Your task to perform on an android device: Open Android settings Image 0: 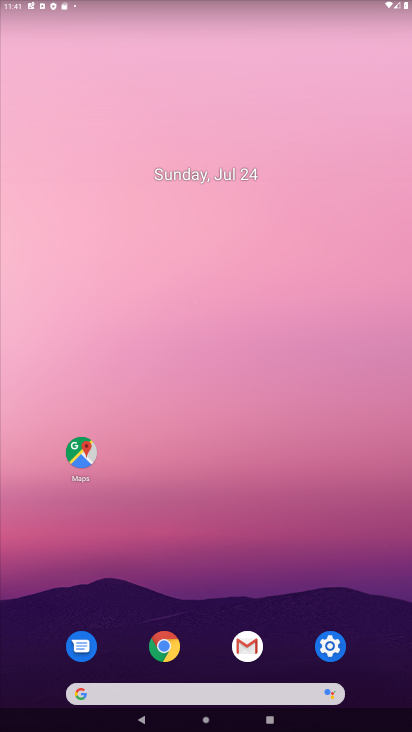
Step 0: click (322, 652)
Your task to perform on an android device: Open Android settings Image 1: 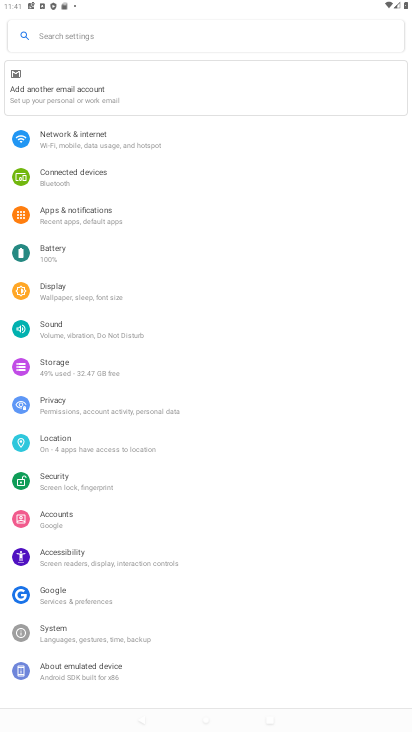
Step 1: click (82, 34)
Your task to perform on an android device: Open Android settings Image 2: 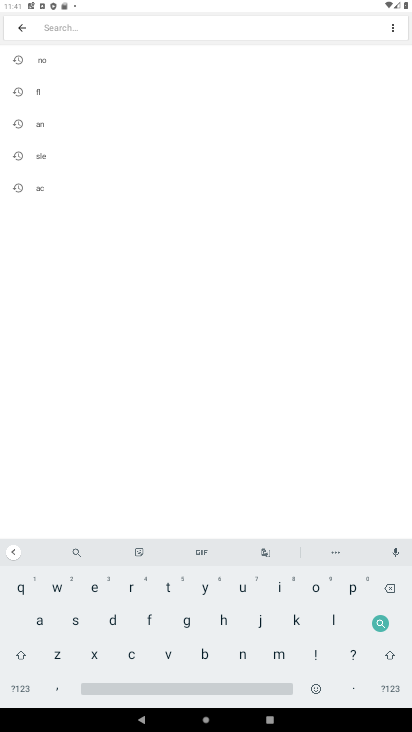
Step 2: click (37, 619)
Your task to perform on an android device: Open Android settings Image 3: 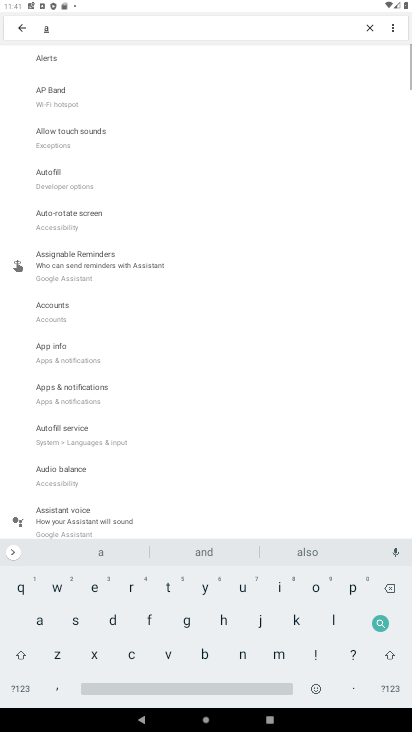
Step 3: click (241, 649)
Your task to perform on an android device: Open Android settings Image 4: 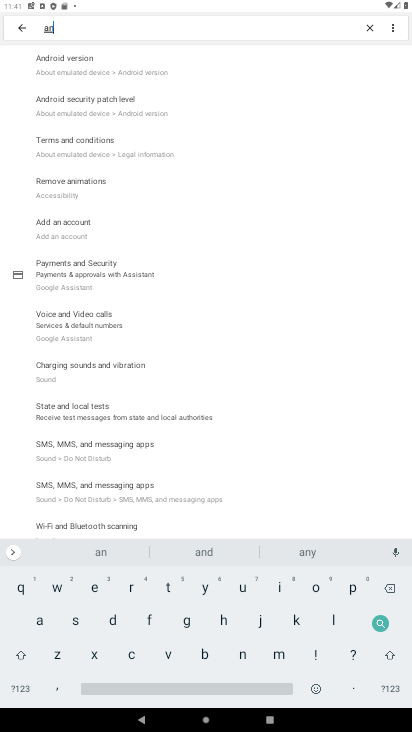
Step 4: click (143, 75)
Your task to perform on an android device: Open Android settings Image 5: 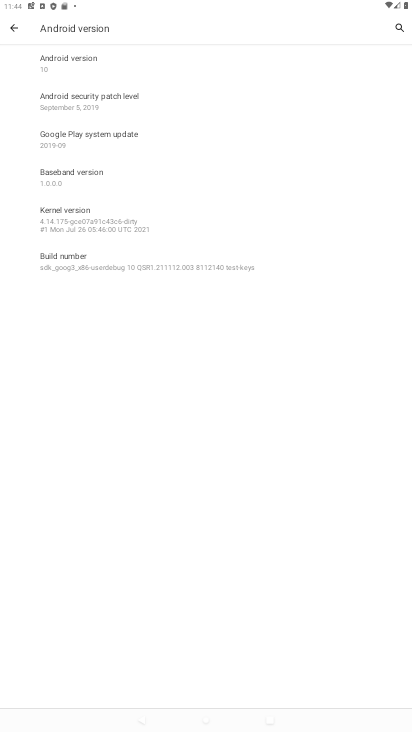
Step 5: task complete